Your task to perform on an android device: Open the calendar app, open the side menu, and click the "Day" option Image 0: 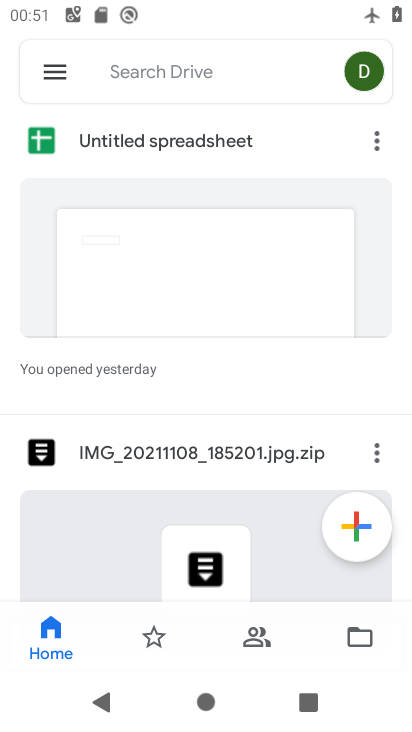
Step 0: press home button
Your task to perform on an android device: Open the calendar app, open the side menu, and click the "Day" option Image 1: 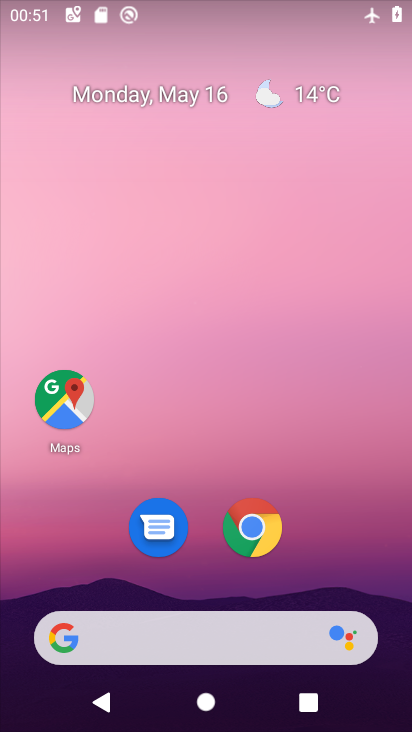
Step 1: drag from (255, 555) to (318, 241)
Your task to perform on an android device: Open the calendar app, open the side menu, and click the "Day" option Image 2: 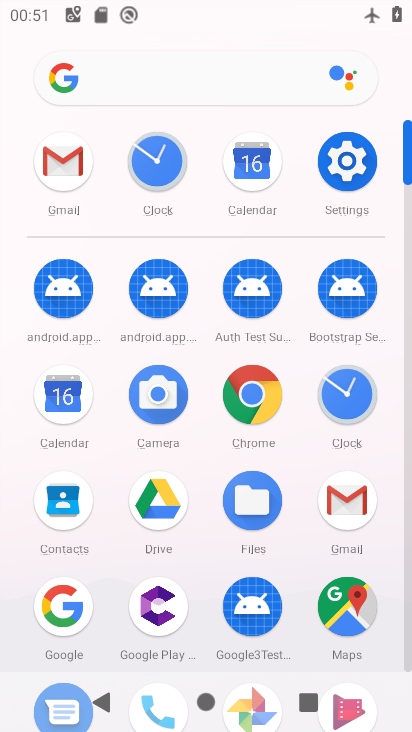
Step 2: click (74, 424)
Your task to perform on an android device: Open the calendar app, open the side menu, and click the "Day" option Image 3: 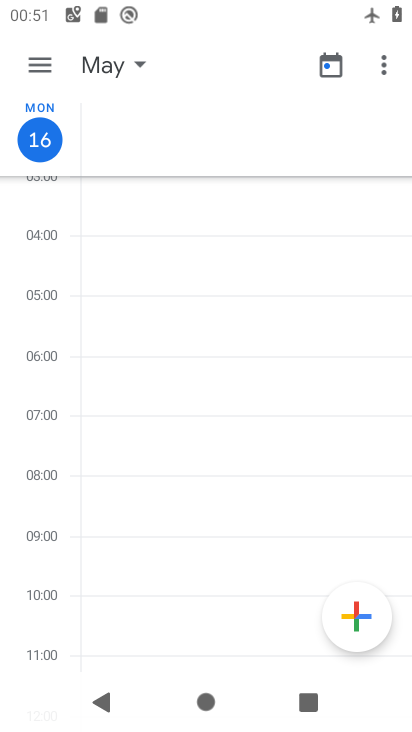
Step 3: click (45, 69)
Your task to perform on an android device: Open the calendar app, open the side menu, and click the "Day" option Image 4: 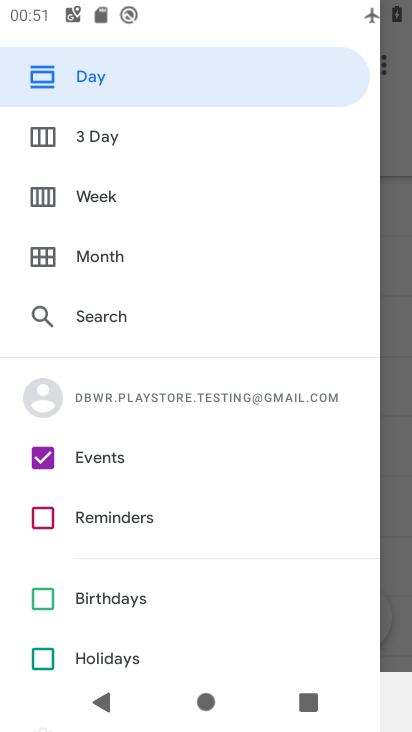
Step 4: click (118, 89)
Your task to perform on an android device: Open the calendar app, open the side menu, and click the "Day" option Image 5: 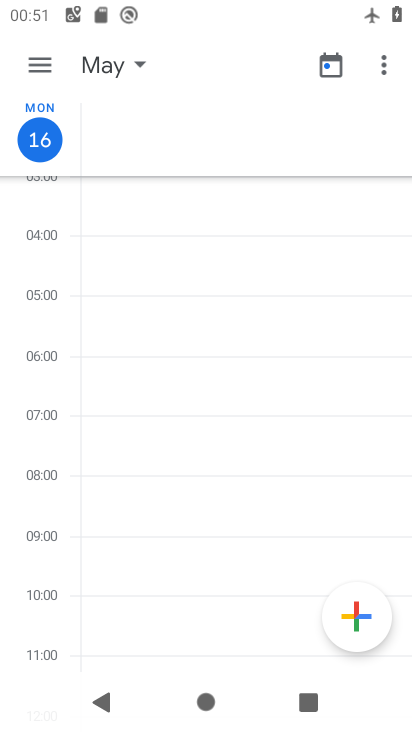
Step 5: task complete